Your task to perform on an android device: change timer sound Image 0: 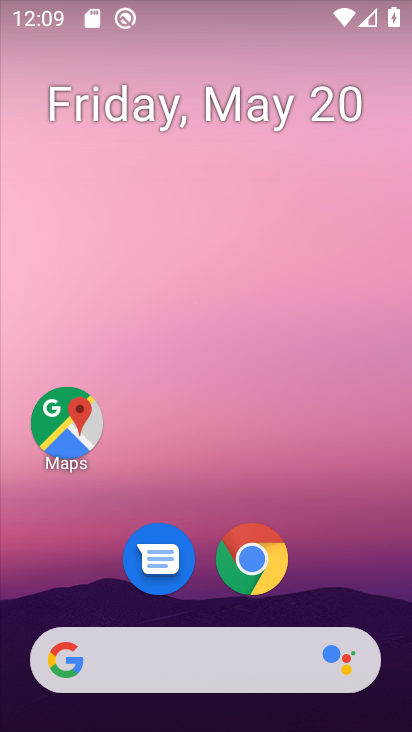
Step 0: drag from (371, 622) to (329, 8)
Your task to perform on an android device: change timer sound Image 1: 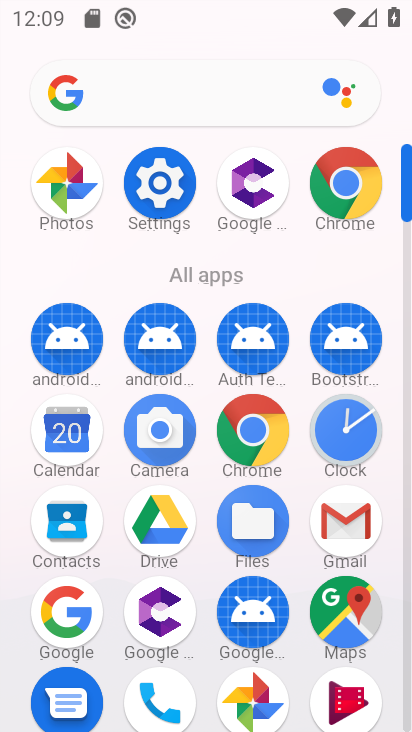
Step 1: click (355, 460)
Your task to perform on an android device: change timer sound Image 2: 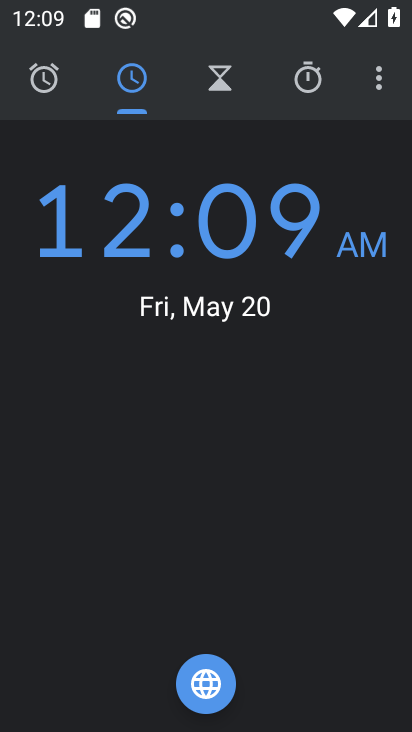
Step 2: click (386, 68)
Your task to perform on an android device: change timer sound Image 3: 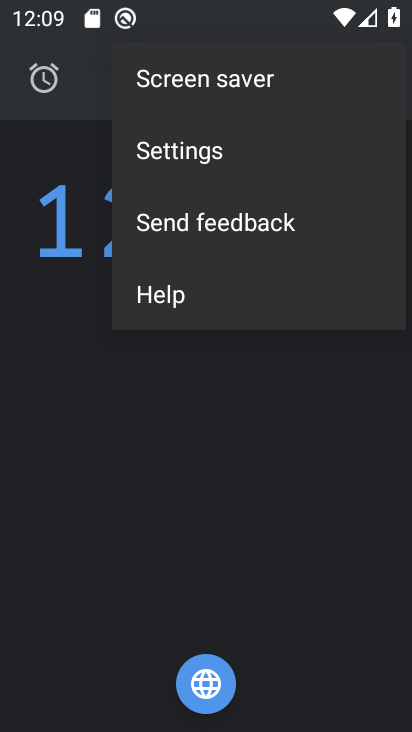
Step 3: click (308, 150)
Your task to perform on an android device: change timer sound Image 4: 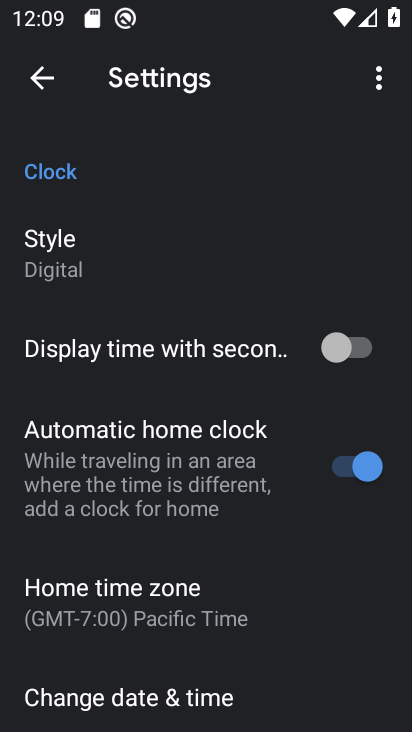
Step 4: drag from (301, 657) to (234, 152)
Your task to perform on an android device: change timer sound Image 5: 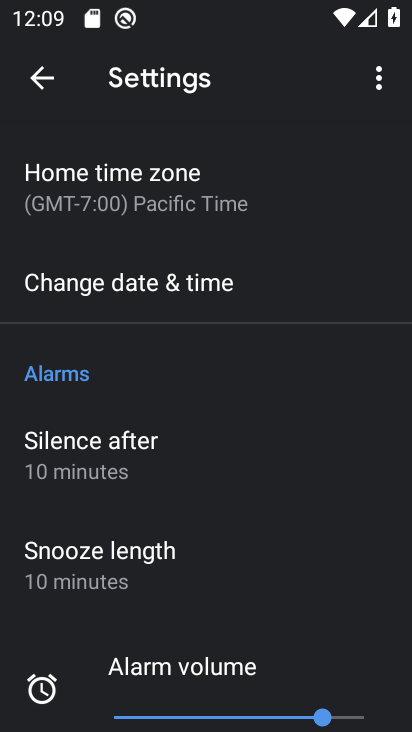
Step 5: drag from (269, 594) to (218, 186)
Your task to perform on an android device: change timer sound Image 6: 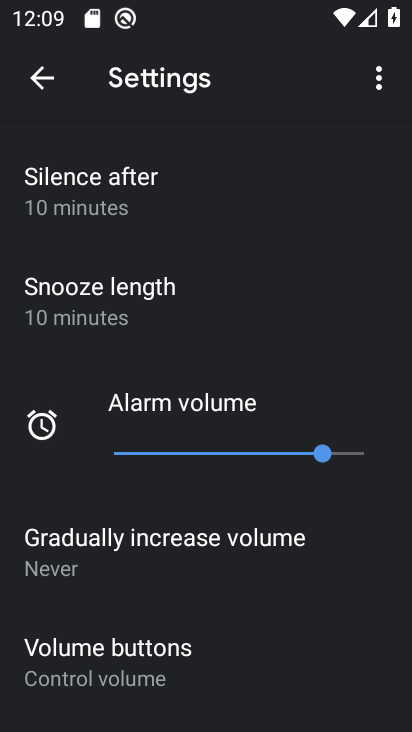
Step 6: drag from (235, 617) to (144, 140)
Your task to perform on an android device: change timer sound Image 7: 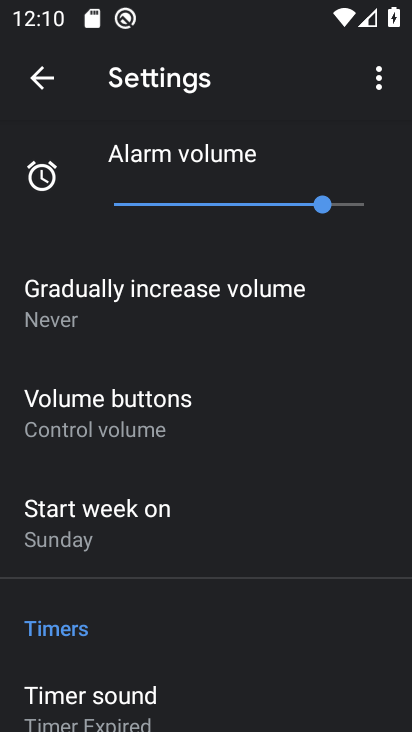
Step 7: drag from (192, 544) to (165, 336)
Your task to perform on an android device: change timer sound Image 8: 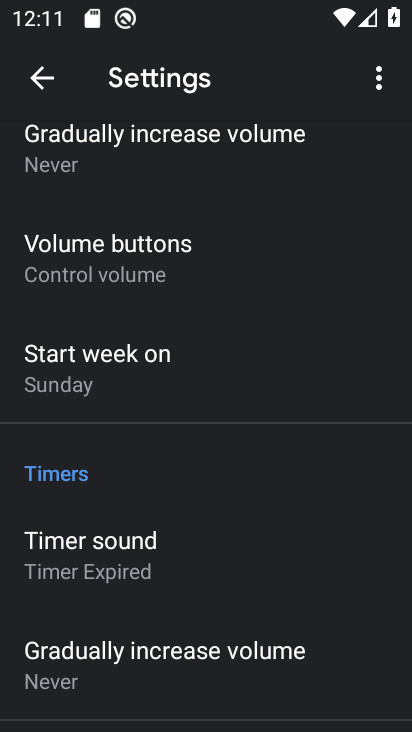
Step 8: click (65, 559)
Your task to perform on an android device: change timer sound Image 9: 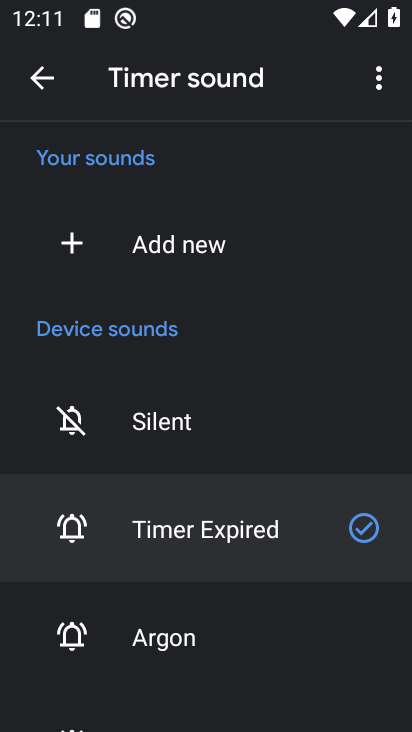
Step 9: click (205, 660)
Your task to perform on an android device: change timer sound Image 10: 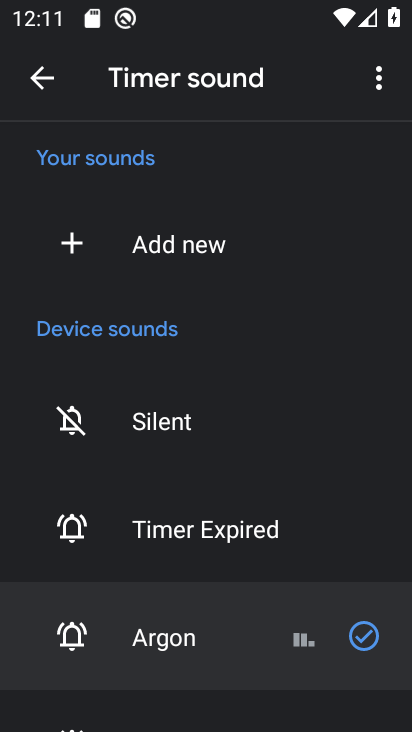
Step 10: task complete